Your task to perform on an android device: delete the emails in spam in the gmail app Image 0: 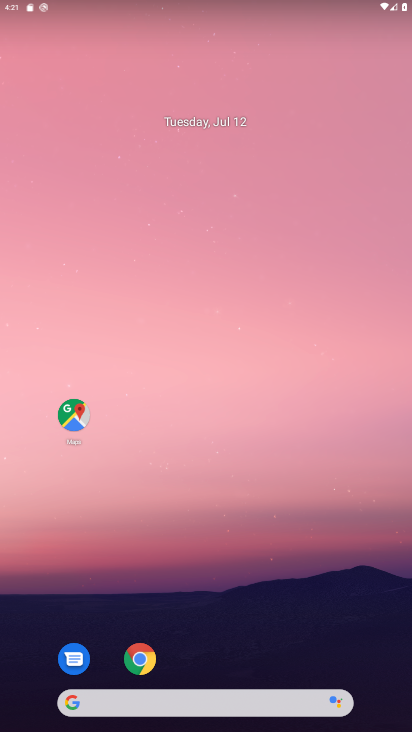
Step 0: drag from (56, 656) to (315, 241)
Your task to perform on an android device: delete the emails in spam in the gmail app Image 1: 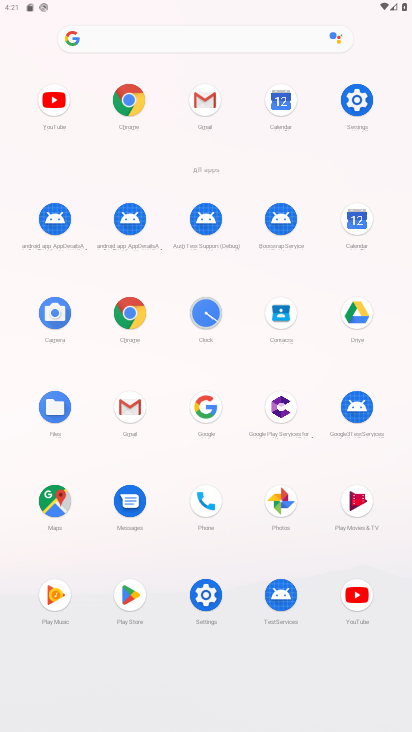
Step 1: click (123, 415)
Your task to perform on an android device: delete the emails in spam in the gmail app Image 2: 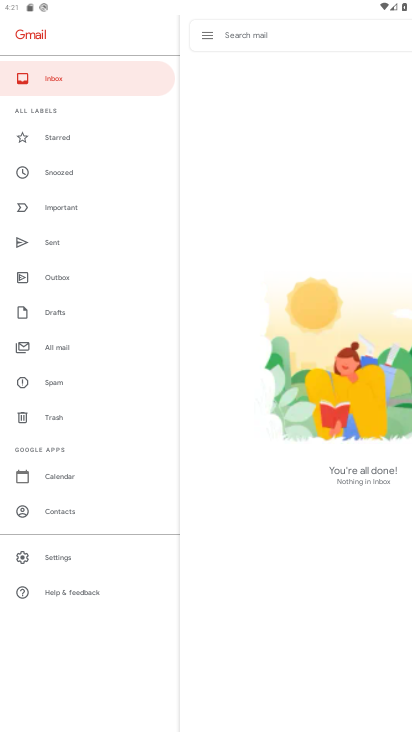
Step 2: click (72, 378)
Your task to perform on an android device: delete the emails in spam in the gmail app Image 3: 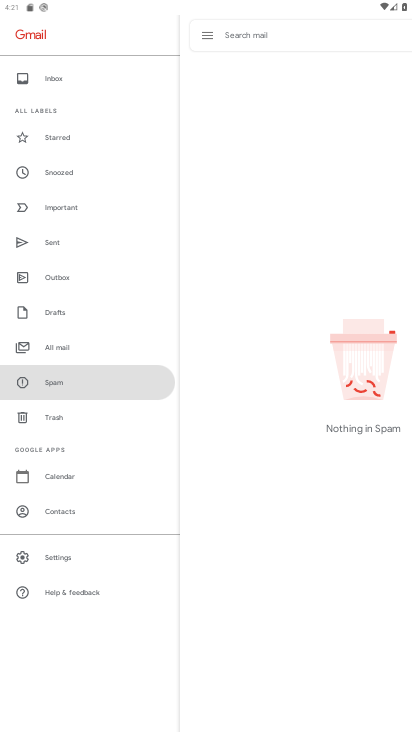
Step 3: task complete